Your task to perform on an android device: Open the map Image 0: 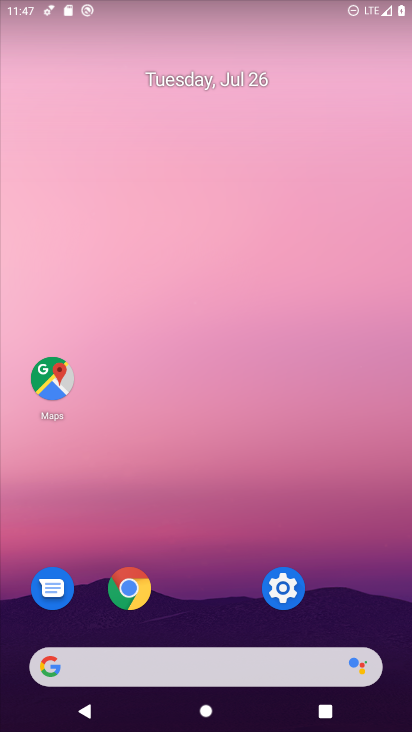
Step 0: click (56, 381)
Your task to perform on an android device: Open the map Image 1: 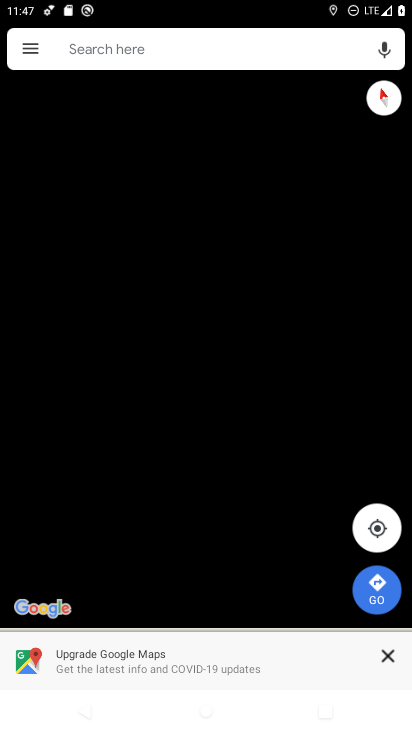
Step 1: click (381, 590)
Your task to perform on an android device: Open the map Image 2: 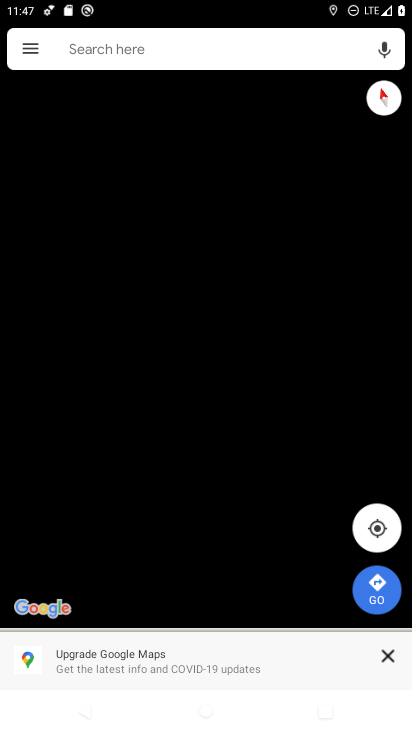
Step 2: click (384, 534)
Your task to perform on an android device: Open the map Image 3: 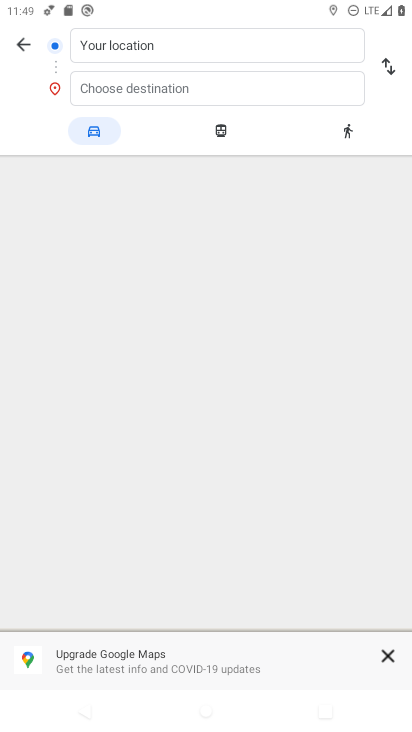
Step 3: task complete